Your task to perform on an android device: turn off notifications in google photos Image 0: 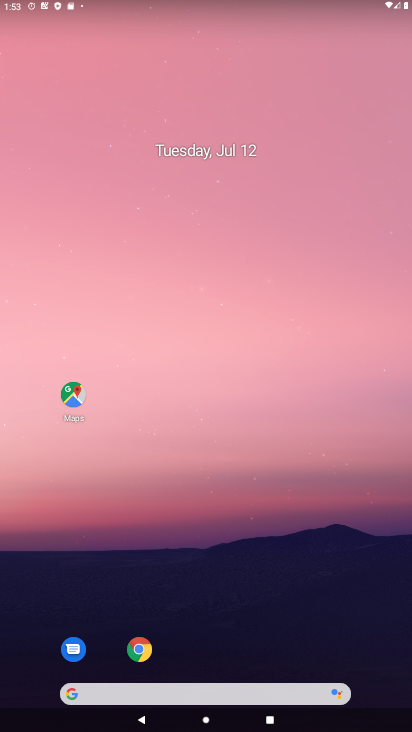
Step 0: drag from (367, 696) to (254, 63)
Your task to perform on an android device: turn off notifications in google photos Image 1: 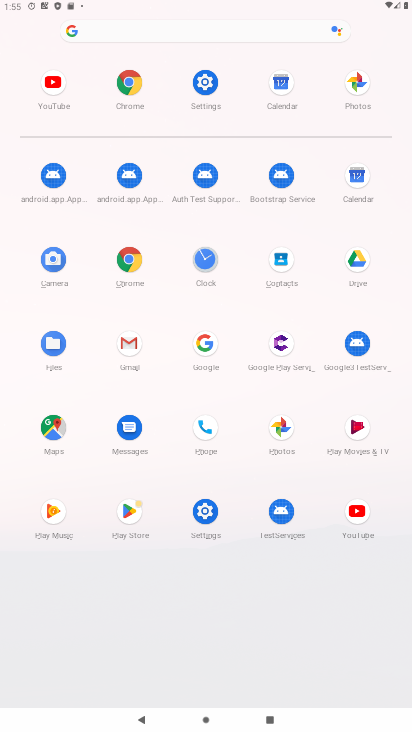
Step 1: click (278, 426)
Your task to perform on an android device: turn off notifications in google photos Image 2: 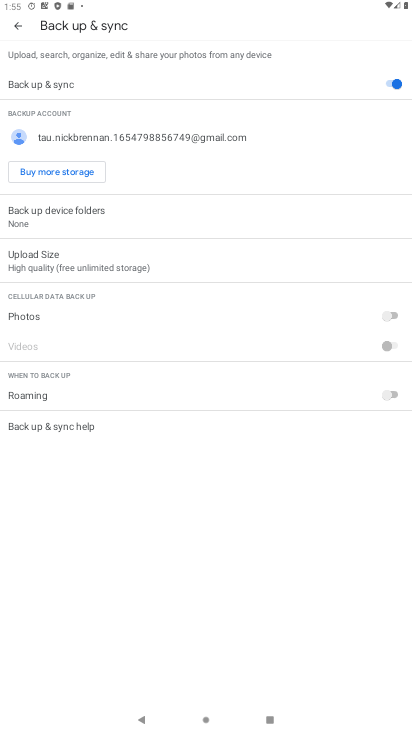
Step 2: press back button
Your task to perform on an android device: turn off notifications in google photos Image 3: 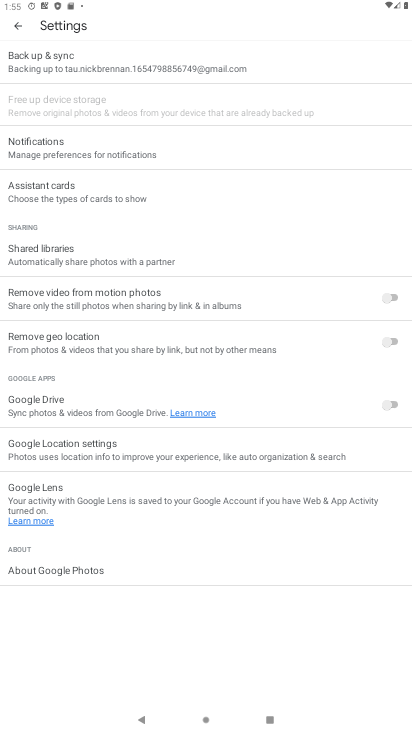
Step 3: click (61, 145)
Your task to perform on an android device: turn off notifications in google photos Image 4: 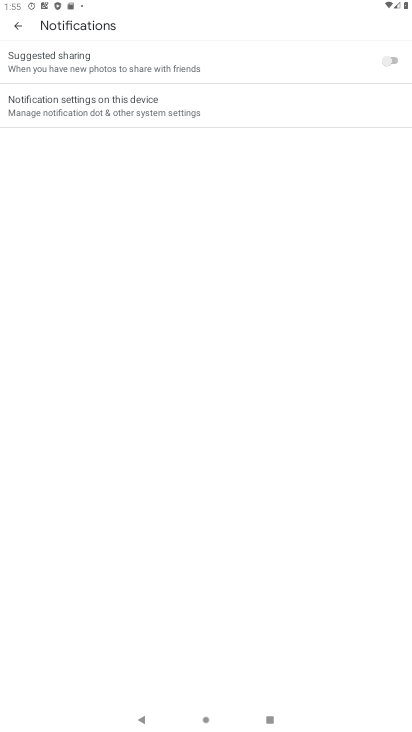
Step 4: task complete